Your task to perform on an android device: allow cookies in the chrome app Image 0: 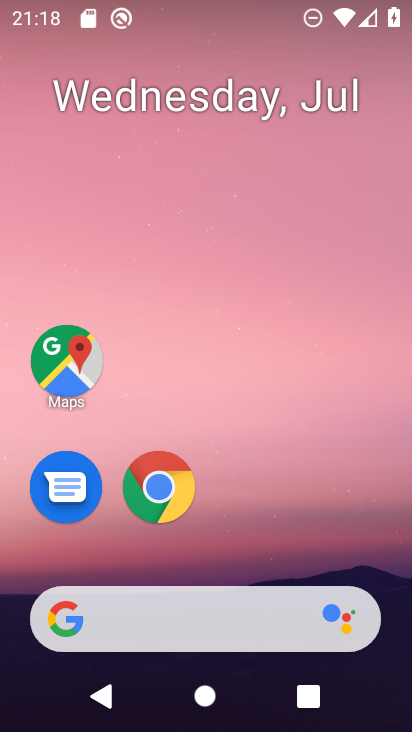
Step 0: drag from (300, 527) to (359, 23)
Your task to perform on an android device: allow cookies in the chrome app Image 1: 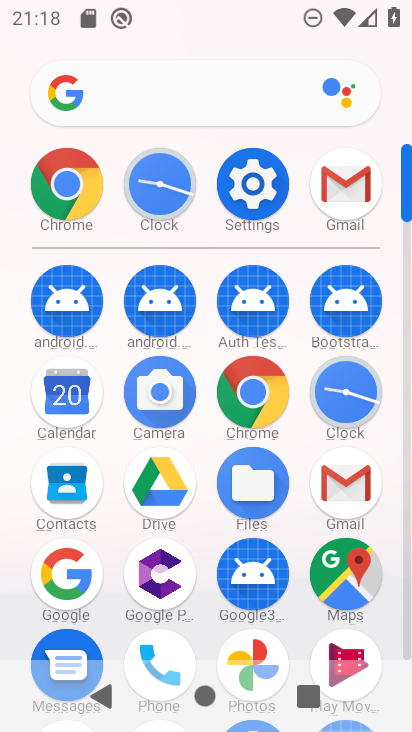
Step 1: click (266, 396)
Your task to perform on an android device: allow cookies in the chrome app Image 2: 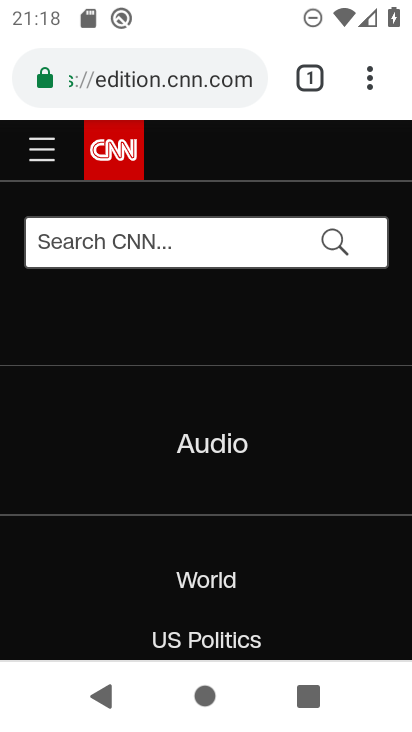
Step 2: click (373, 86)
Your task to perform on an android device: allow cookies in the chrome app Image 3: 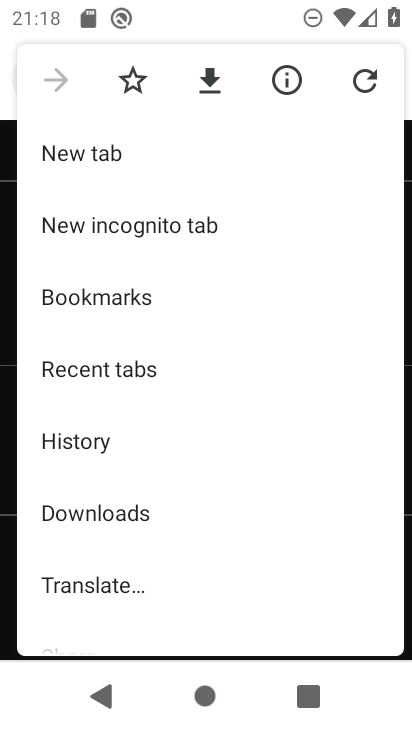
Step 3: drag from (290, 431) to (289, 357)
Your task to perform on an android device: allow cookies in the chrome app Image 4: 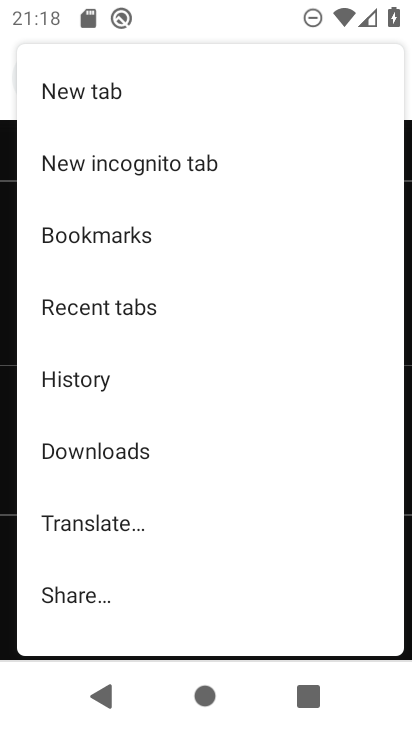
Step 4: drag from (286, 481) to (291, 397)
Your task to perform on an android device: allow cookies in the chrome app Image 5: 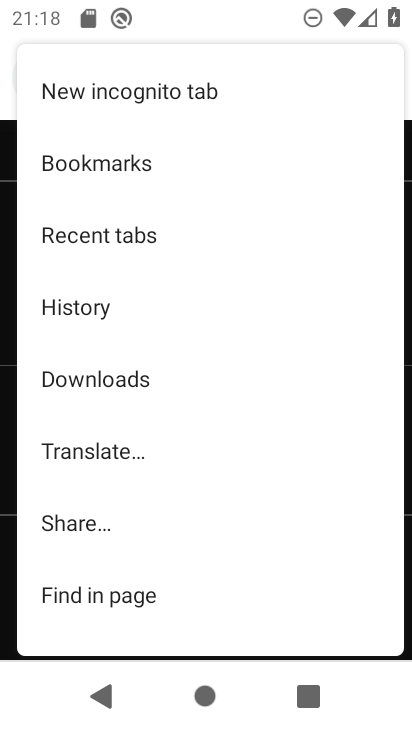
Step 5: drag from (298, 510) to (303, 405)
Your task to perform on an android device: allow cookies in the chrome app Image 6: 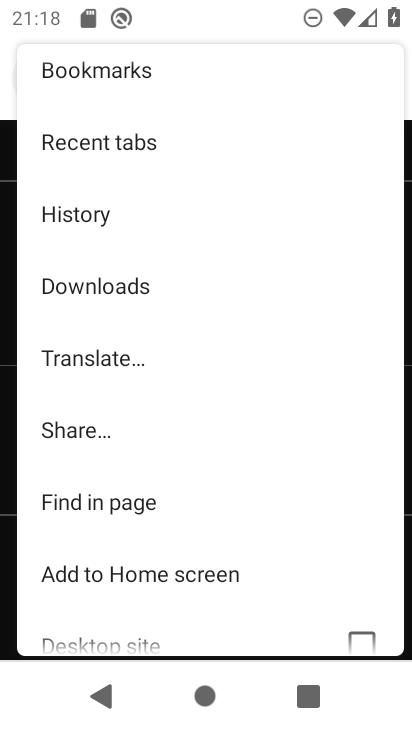
Step 6: drag from (300, 515) to (307, 255)
Your task to perform on an android device: allow cookies in the chrome app Image 7: 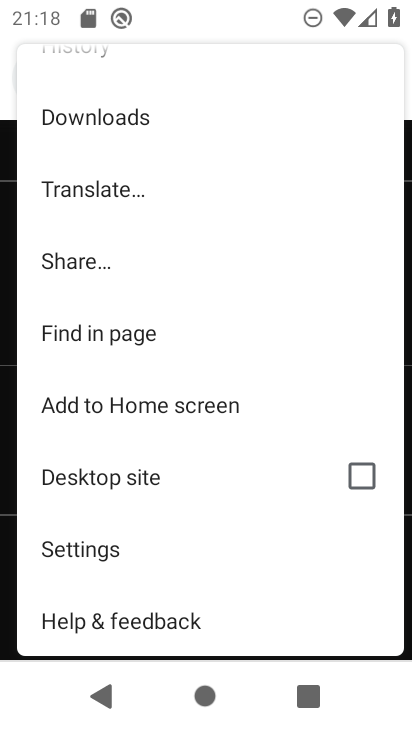
Step 7: click (127, 553)
Your task to perform on an android device: allow cookies in the chrome app Image 8: 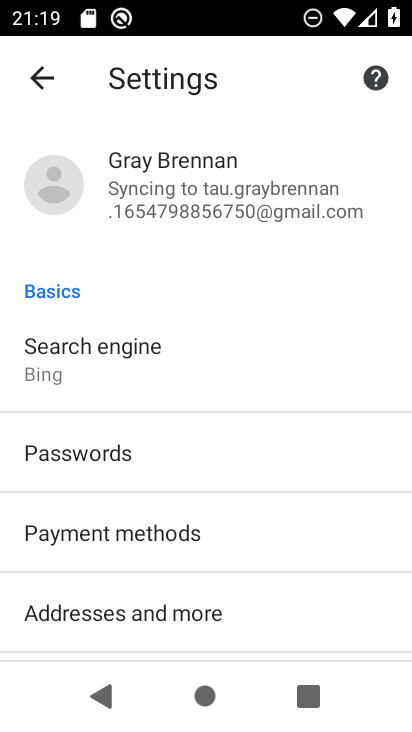
Step 8: drag from (319, 487) to (310, 323)
Your task to perform on an android device: allow cookies in the chrome app Image 9: 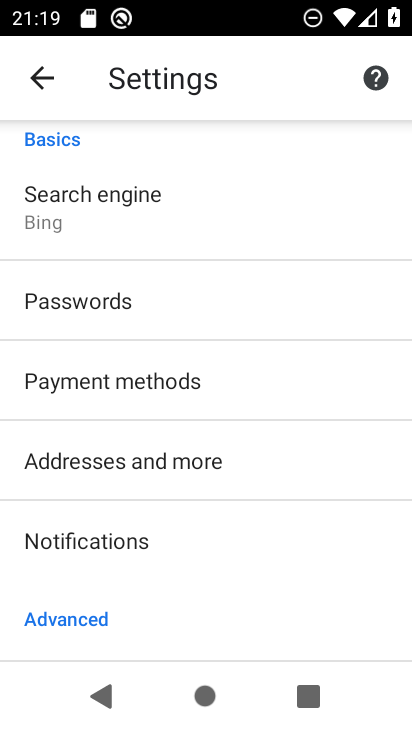
Step 9: drag from (335, 478) to (342, 388)
Your task to perform on an android device: allow cookies in the chrome app Image 10: 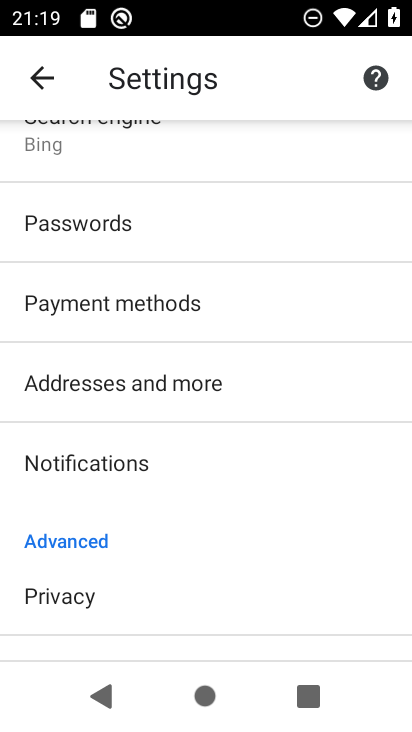
Step 10: drag from (316, 517) to (325, 415)
Your task to perform on an android device: allow cookies in the chrome app Image 11: 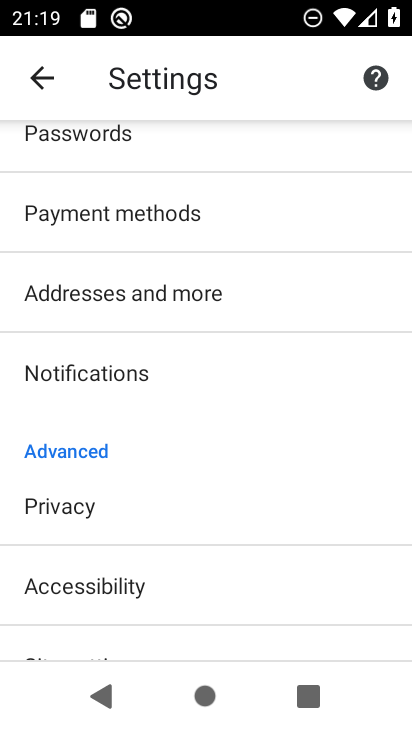
Step 11: drag from (312, 536) to (306, 433)
Your task to perform on an android device: allow cookies in the chrome app Image 12: 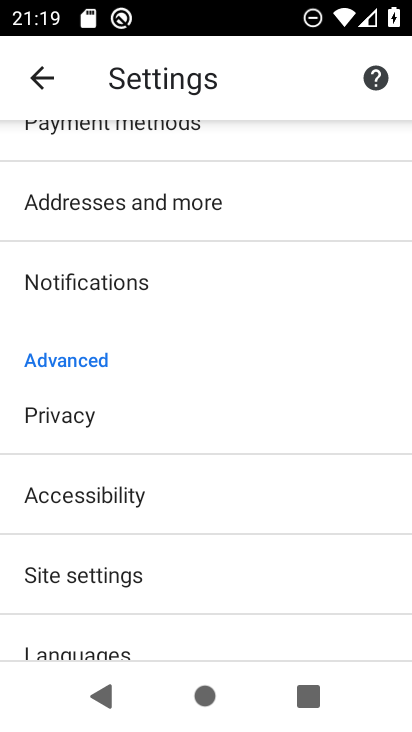
Step 12: drag from (305, 536) to (303, 417)
Your task to perform on an android device: allow cookies in the chrome app Image 13: 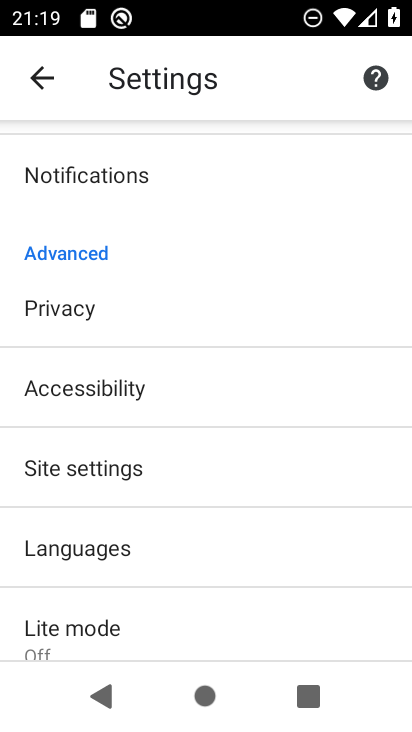
Step 13: drag from (307, 558) to (316, 306)
Your task to perform on an android device: allow cookies in the chrome app Image 14: 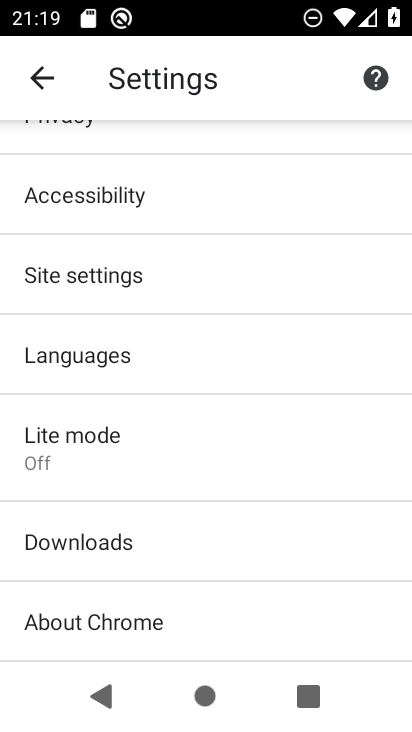
Step 14: click (309, 285)
Your task to perform on an android device: allow cookies in the chrome app Image 15: 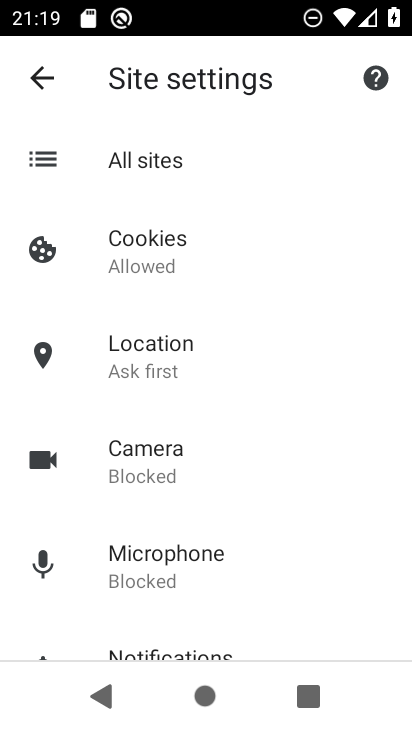
Step 15: drag from (318, 426) to (328, 363)
Your task to perform on an android device: allow cookies in the chrome app Image 16: 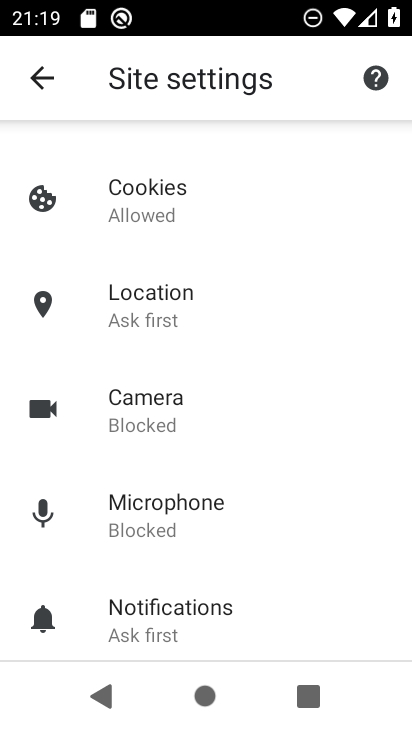
Step 16: drag from (328, 467) to (330, 358)
Your task to perform on an android device: allow cookies in the chrome app Image 17: 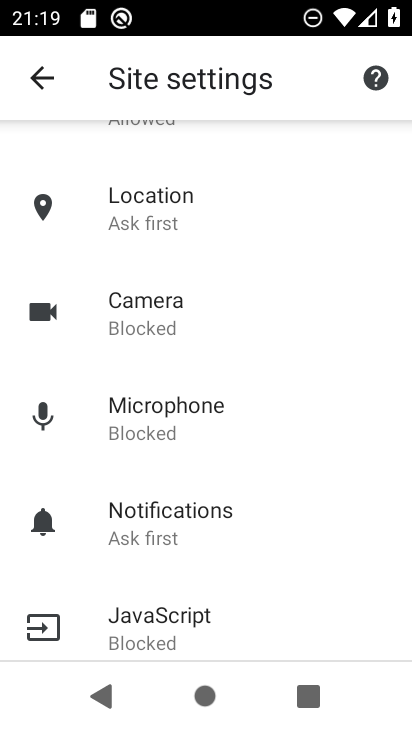
Step 17: drag from (326, 489) to (328, 385)
Your task to perform on an android device: allow cookies in the chrome app Image 18: 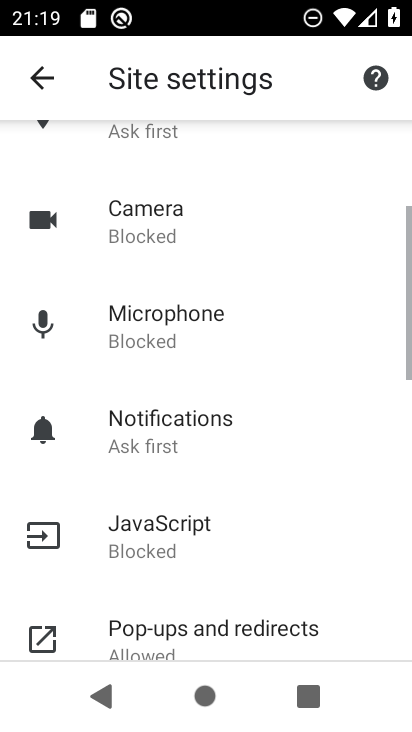
Step 18: drag from (325, 304) to (327, 414)
Your task to perform on an android device: allow cookies in the chrome app Image 19: 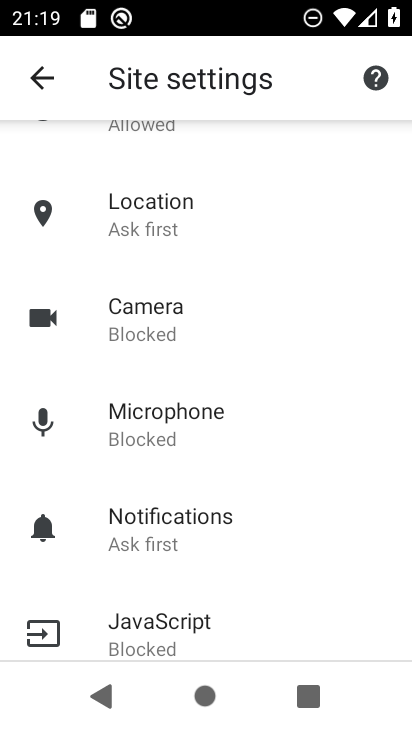
Step 19: drag from (328, 253) to (321, 357)
Your task to perform on an android device: allow cookies in the chrome app Image 20: 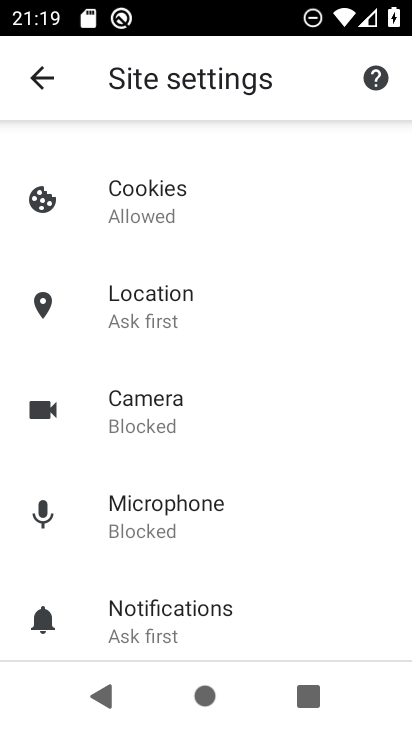
Step 20: drag from (336, 228) to (339, 377)
Your task to perform on an android device: allow cookies in the chrome app Image 21: 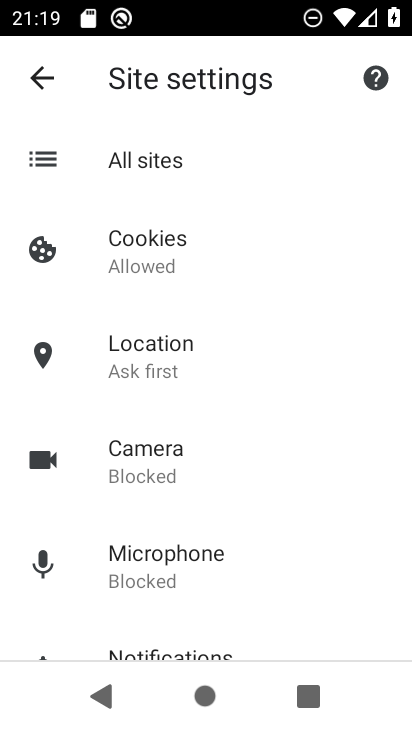
Step 21: click (295, 238)
Your task to perform on an android device: allow cookies in the chrome app Image 22: 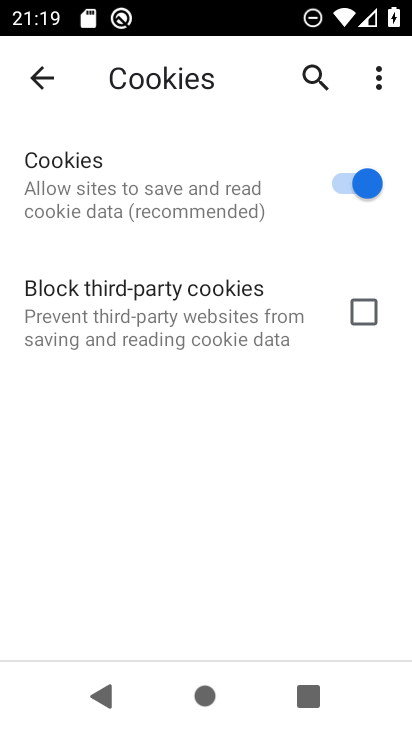
Step 22: task complete